Your task to perform on an android device: Open the map Image 0: 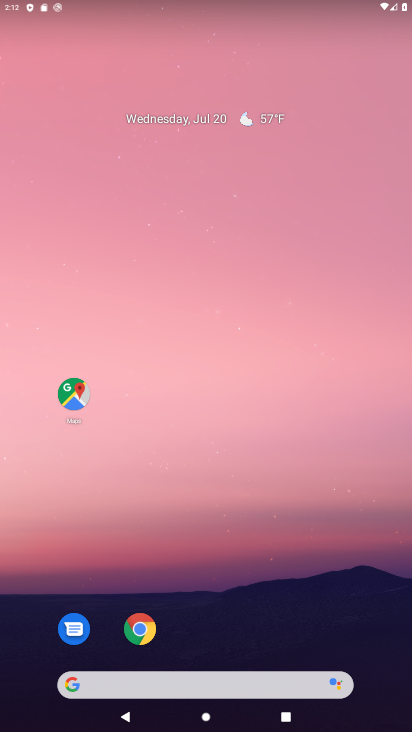
Step 0: click (63, 397)
Your task to perform on an android device: Open the map Image 1: 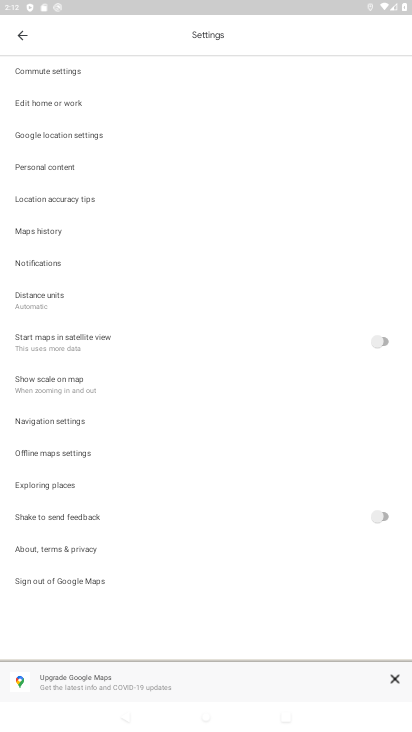
Step 1: click (7, 33)
Your task to perform on an android device: Open the map Image 2: 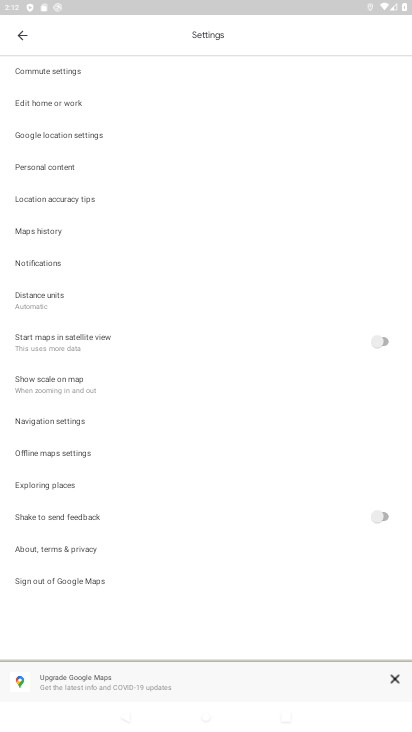
Step 2: click (17, 34)
Your task to perform on an android device: Open the map Image 3: 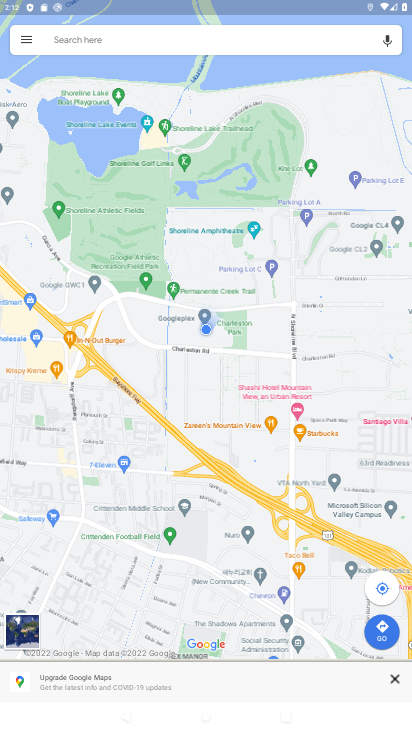
Step 3: task complete